Your task to perform on an android device: check storage Image 0: 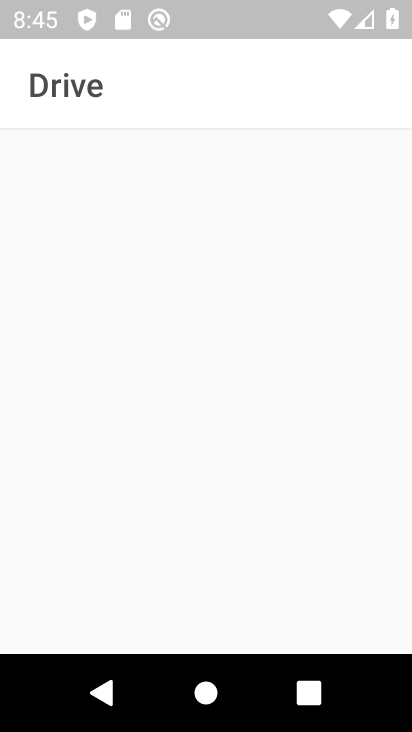
Step 0: press home button
Your task to perform on an android device: check storage Image 1: 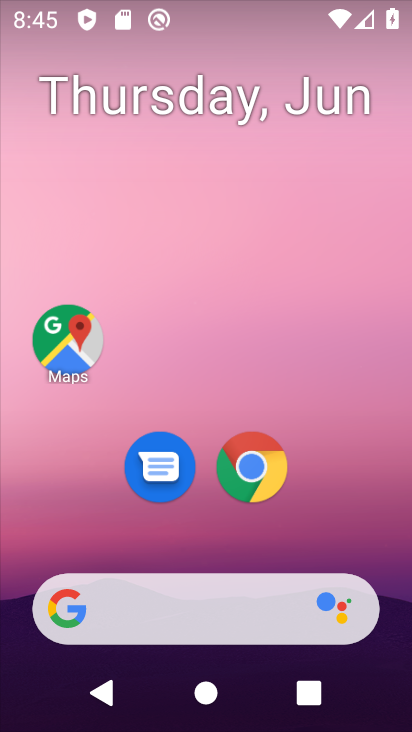
Step 1: drag from (91, 534) to (169, 207)
Your task to perform on an android device: check storage Image 2: 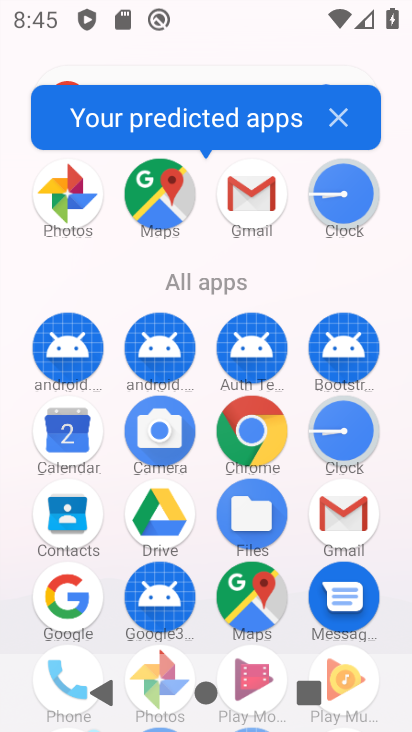
Step 2: drag from (224, 611) to (250, 494)
Your task to perform on an android device: check storage Image 3: 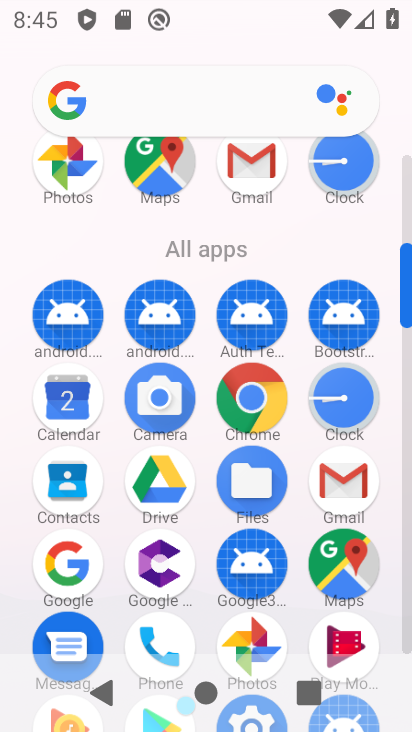
Step 3: drag from (104, 643) to (241, 224)
Your task to perform on an android device: check storage Image 4: 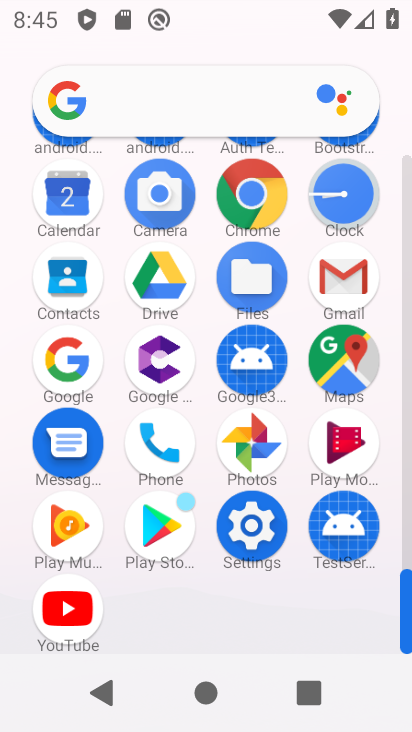
Step 4: click (260, 525)
Your task to perform on an android device: check storage Image 5: 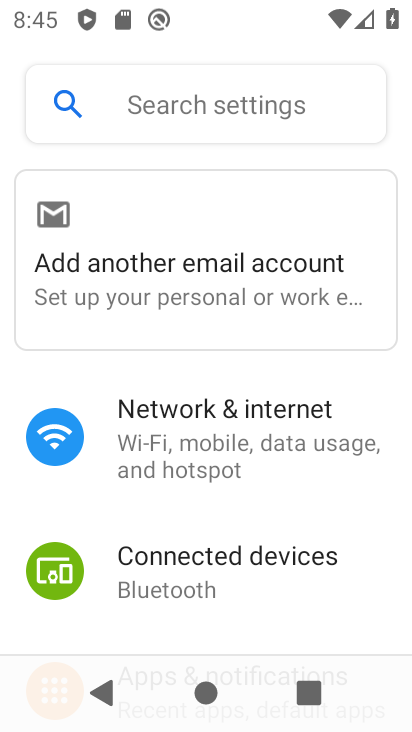
Step 5: drag from (189, 610) to (334, 152)
Your task to perform on an android device: check storage Image 6: 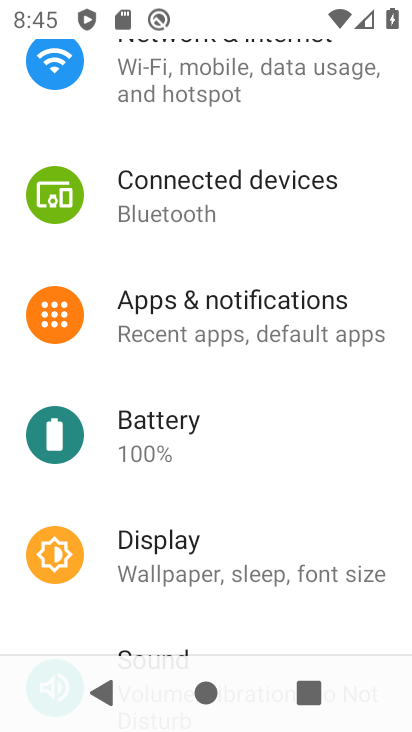
Step 6: drag from (248, 605) to (345, 252)
Your task to perform on an android device: check storage Image 7: 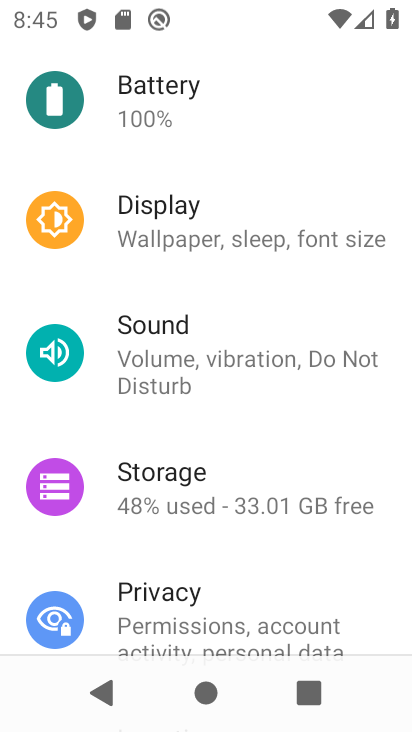
Step 7: click (187, 488)
Your task to perform on an android device: check storage Image 8: 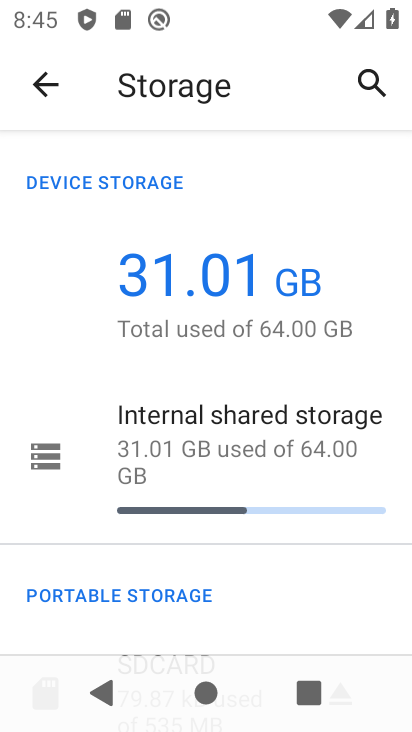
Step 8: task complete